Your task to perform on an android device: Show me popular videos on Youtube Image 0: 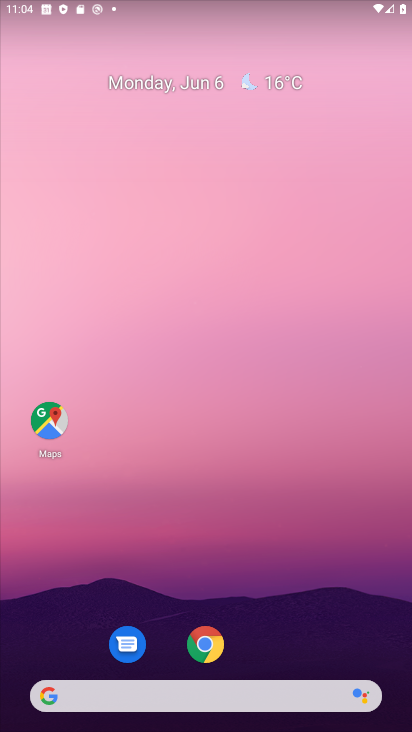
Step 0: drag from (286, 637) to (208, 242)
Your task to perform on an android device: Show me popular videos on Youtube Image 1: 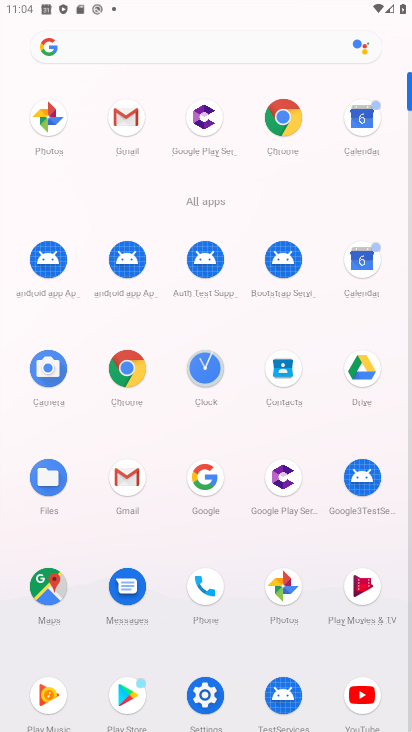
Step 1: click (364, 683)
Your task to perform on an android device: Show me popular videos on Youtube Image 2: 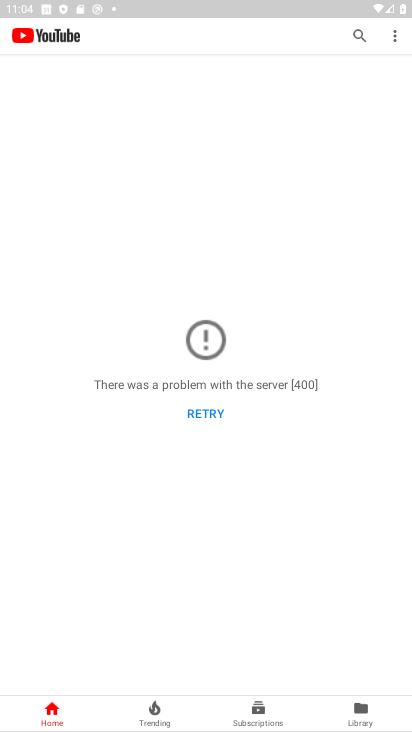
Step 2: click (154, 727)
Your task to perform on an android device: Show me popular videos on Youtube Image 3: 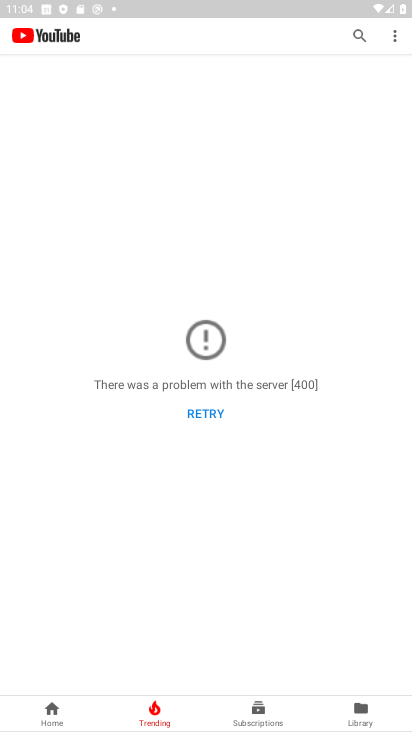
Step 3: task complete